Your task to perform on an android device: toggle data saver in the chrome app Image 0: 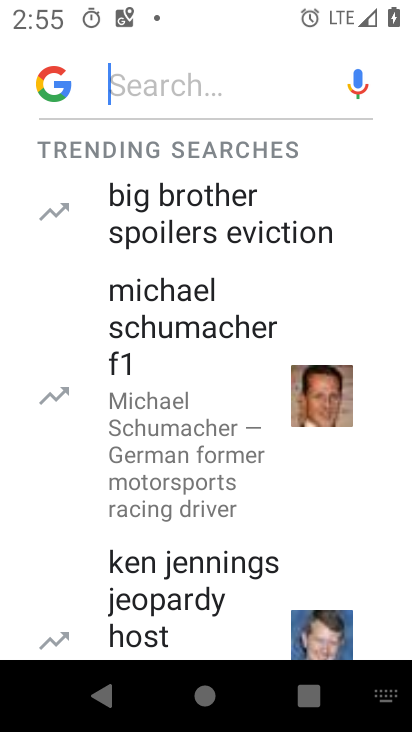
Step 0: press home button
Your task to perform on an android device: toggle data saver in the chrome app Image 1: 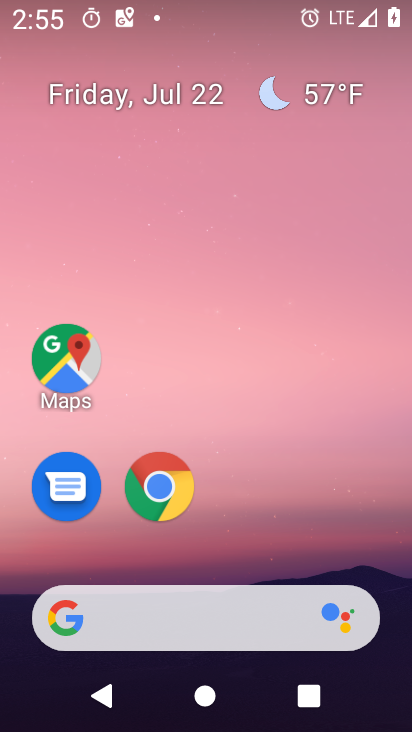
Step 1: drag from (396, 568) to (394, 113)
Your task to perform on an android device: toggle data saver in the chrome app Image 2: 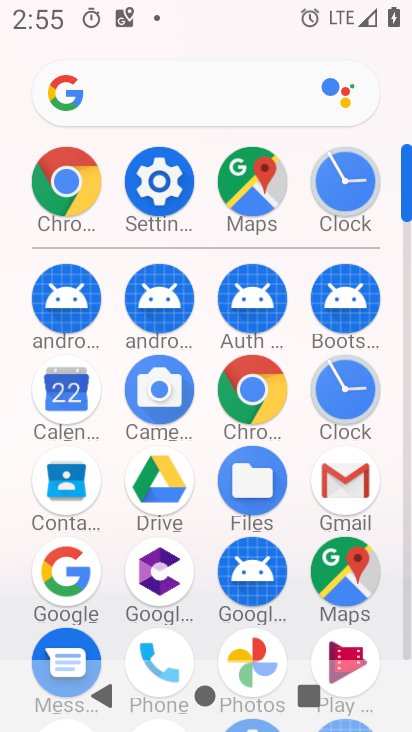
Step 2: click (267, 379)
Your task to perform on an android device: toggle data saver in the chrome app Image 3: 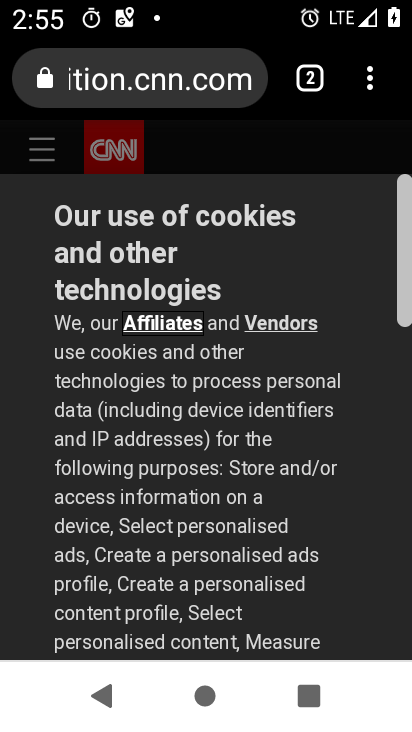
Step 3: click (371, 91)
Your task to perform on an android device: toggle data saver in the chrome app Image 4: 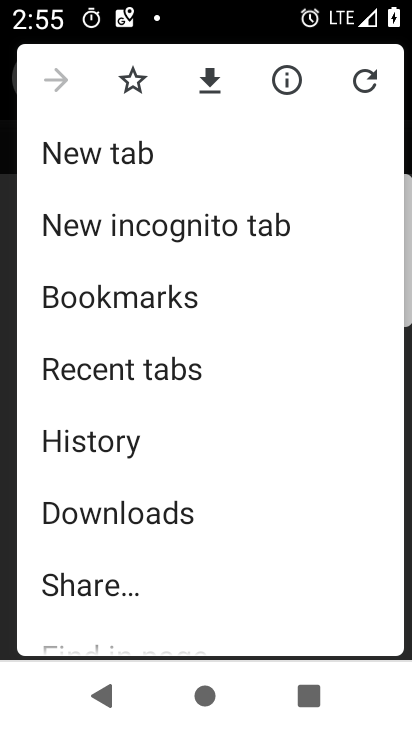
Step 4: drag from (311, 436) to (327, 337)
Your task to perform on an android device: toggle data saver in the chrome app Image 5: 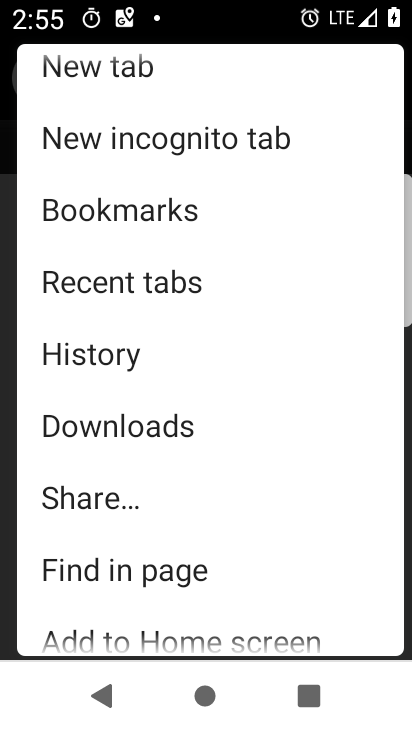
Step 5: drag from (334, 493) to (347, 398)
Your task to perform on an android device: toggle data saver in the chrome app Image 6: 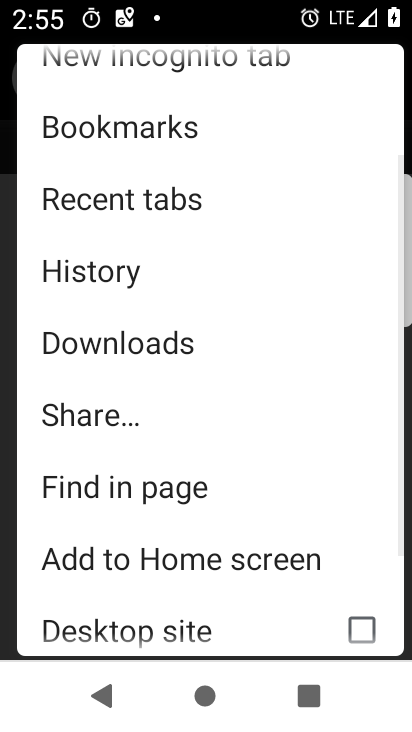
Step 6: drag from (355, 526) to (353, 378)
Your task to perform on an android device: toggle data saver in the chrome app Image 7: 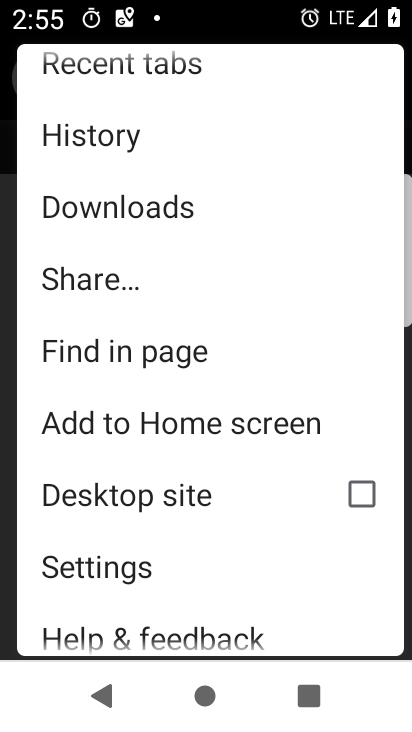
Step 7: click (314, 558)
Your task to perform on an android device: toggle data saver in the chrome app Image 8: 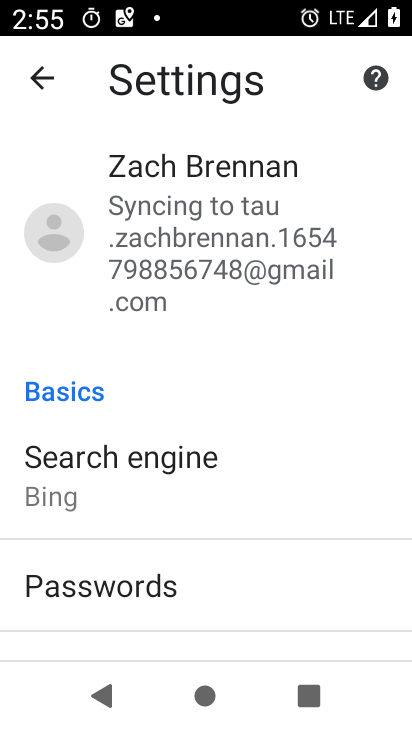
Step 8: drag from (331, 549) to (334, 408)
Your task to perform on an android device: toggle data saver in the chrome app Image 9: 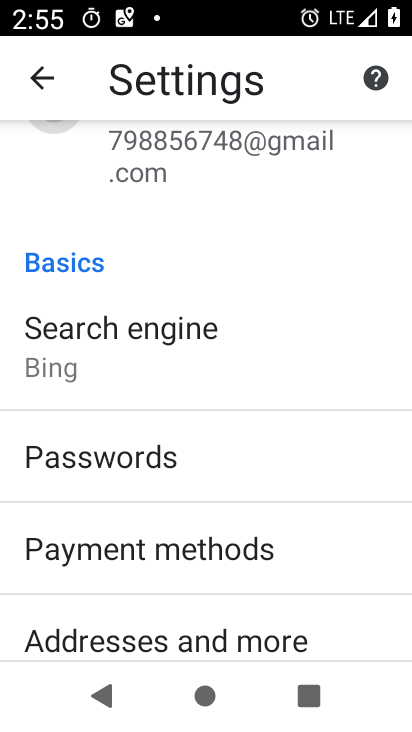
Step 9: drag from (338, 525) to (341, 410)
Your task to perform on an android device: toggle data saver in the chrome app Image 10: 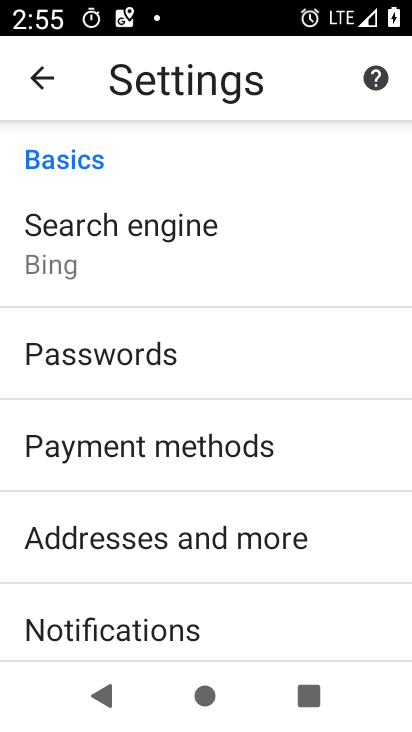
Step 10: drag from (344, 538) to (344, 431)
Your task to perform on an android device: toggle data saver in the chrome app Image 11: 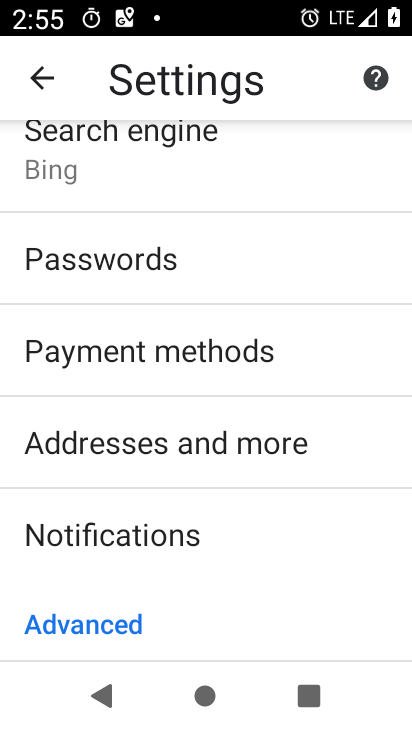
Step 11: drag from (339, 574) to (340, 475)
Your task to perform on an android device: toggle data saver in the chrome app Image 12: 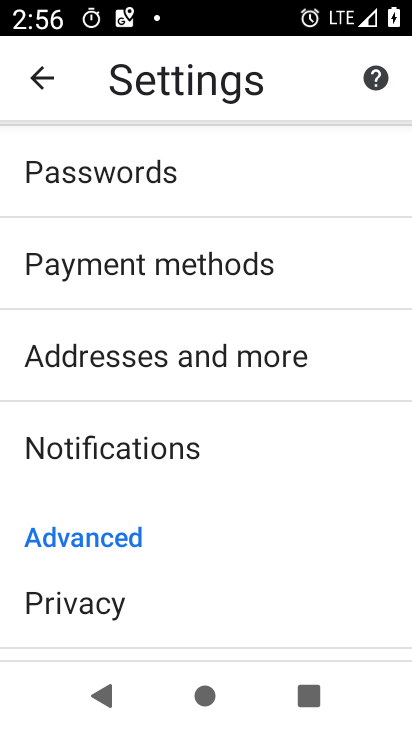
Step 12: drag from (335, 575) to (330, 456)
Your task to perform on an android device: toggle data saver in the chrome app Image 13: 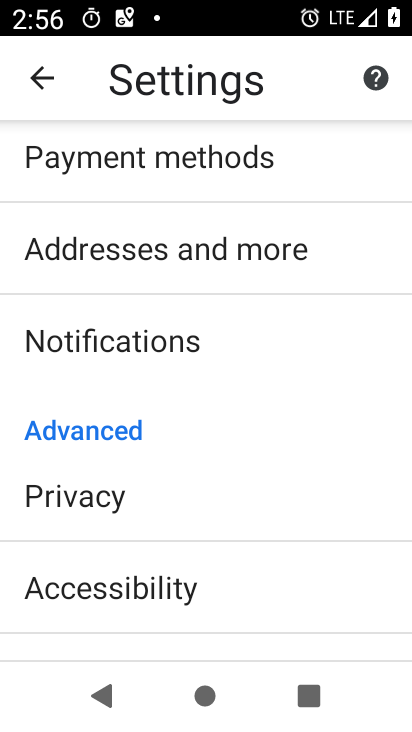
Step 13: drag from (316, 559) to (314, 422)
Your task to perform on an android device: toggle data saver in the chrome app Image 14: 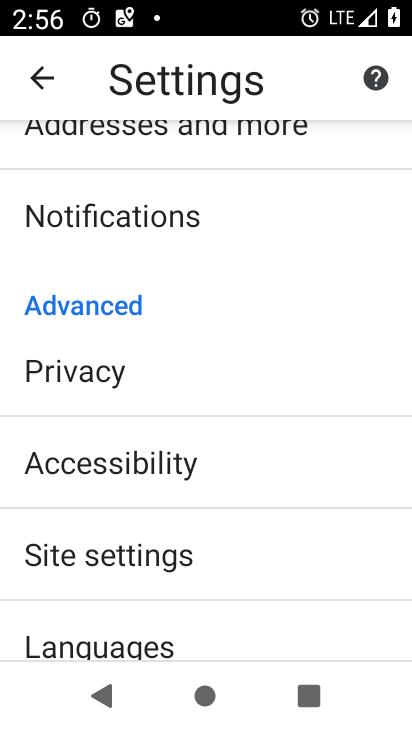
Step 14: drag from (336, 593) to (330, 441)
Your task to perform on an android device: toggle data saver in the chrome app Image 15: 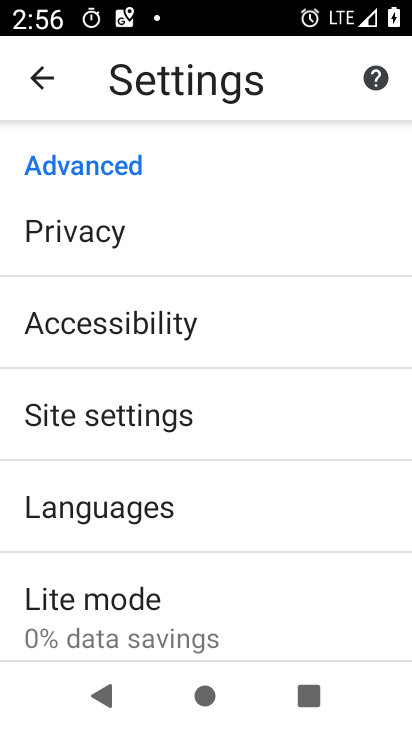
Step 15: drag from (333, 614) to (334, 501)
Your task to perform on an android device: toggle data saver in the chrome app Image 16: 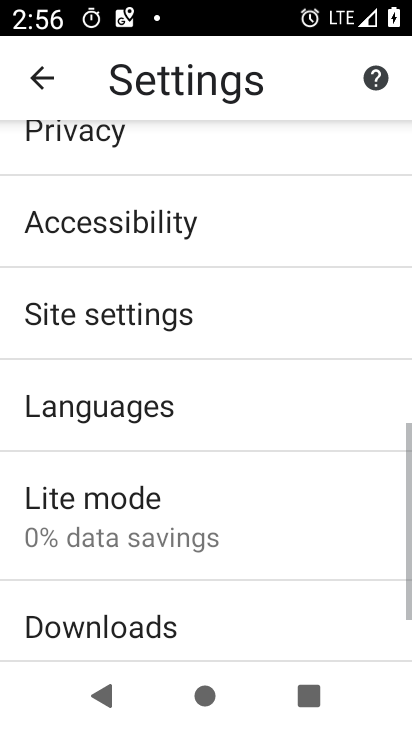
Step 16: click (334, 533)
Your task to perform on an android device: toggle data saver in the chrome app Image 17: 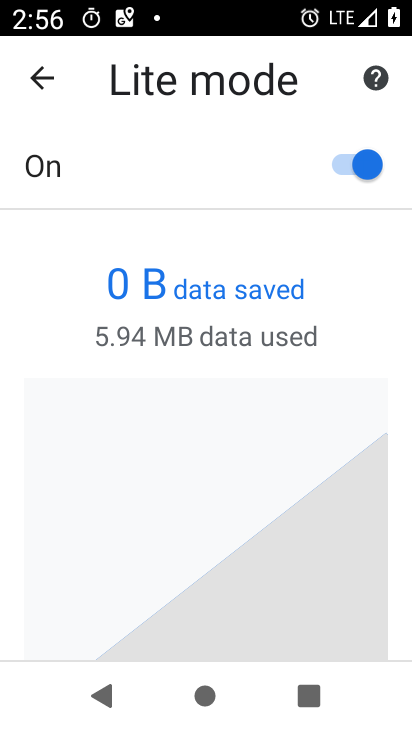
Step 17: click (341, 157)
Your task to perform on an android device: toggle data saver in the chrome app Image 18: 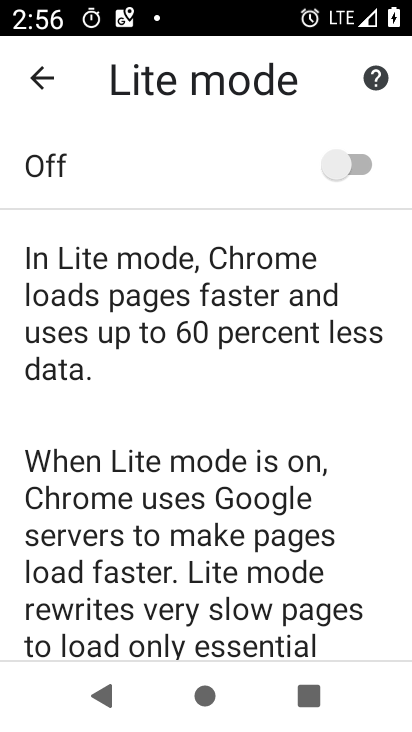
Step 18: task complete